Your task to perform on an android device: visit the assistant section in the google photos Image 0: 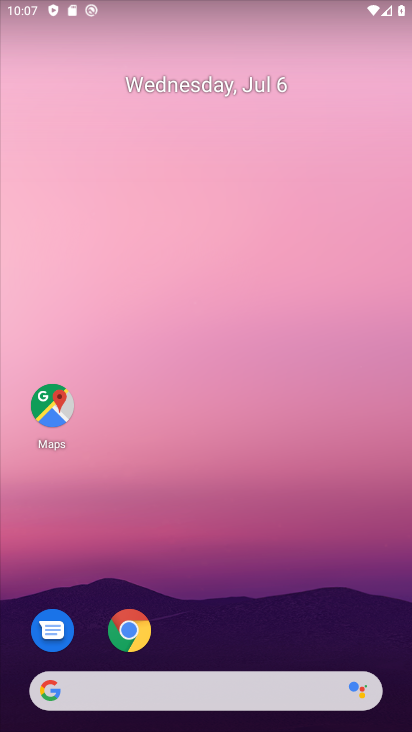
Step 0: drag from (228, 637) to (252, 127)
Your task to perform on an android device: visit the assistant section in the google photos Image 1: 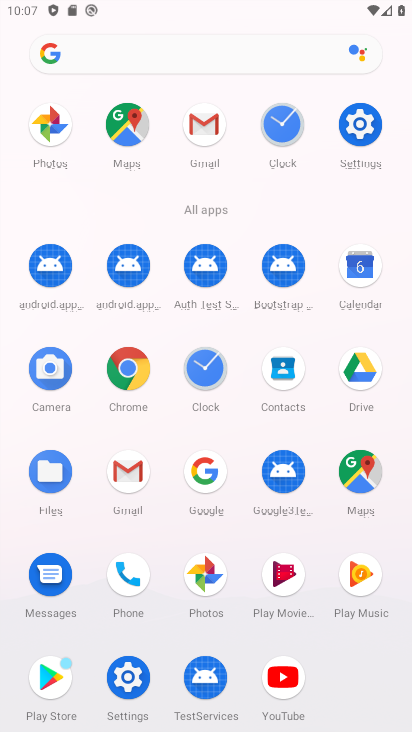
Step 1: click (214, 587)
Your task to perform on an android device: visit the assistant section in the google photos Image 2: 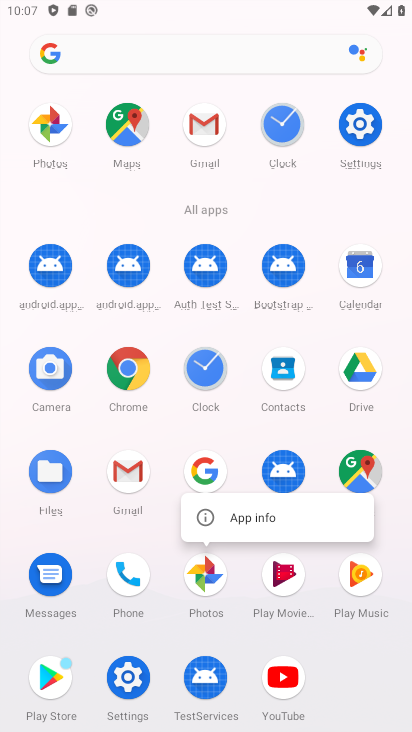
Step 2: click (216, 576)
Your task to perform on an android device: visit the assistant section in the google photos Image 3: 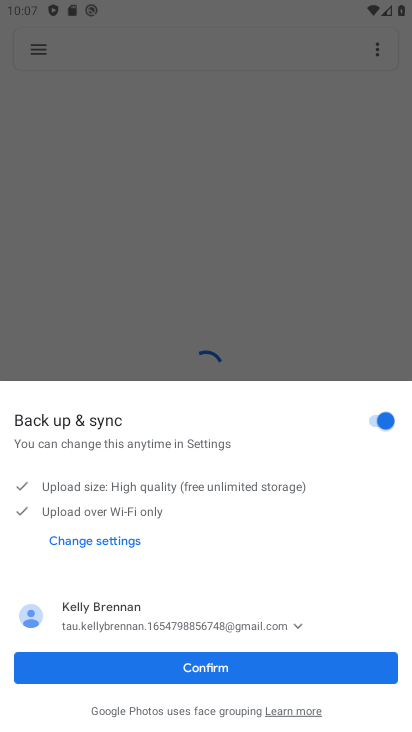
Step 3: click (212, 671)
Your task to perform on an android device: visit the assistant section in the google photos Image 4: 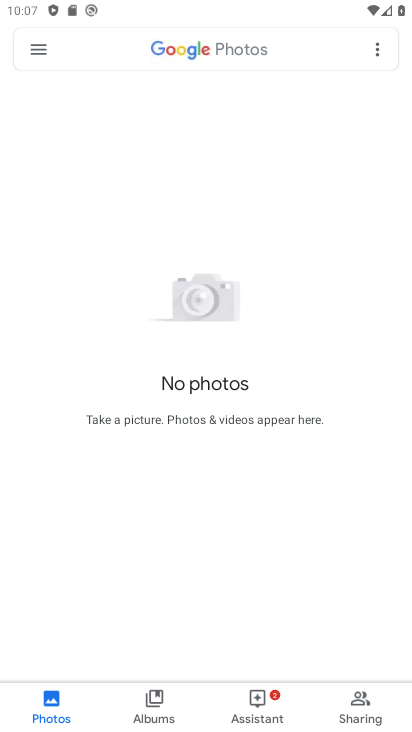
Step 4: click (271, 701)
Your task to perform on an android device: visit the assistant section in the google photos Image 5: 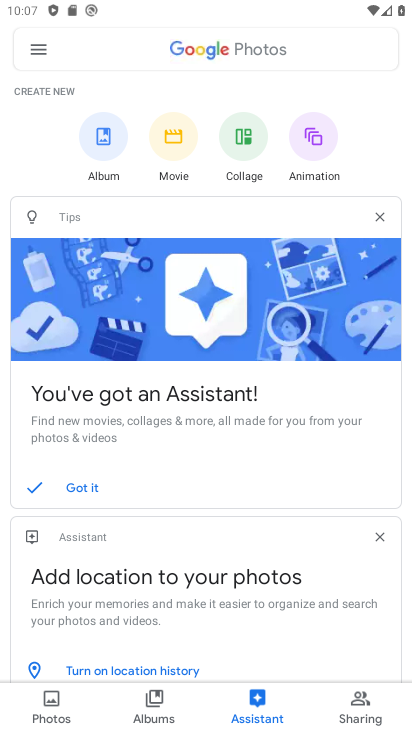
Step 5: task complete